Your task to perform on an android device: Open CNN.com Image 0: 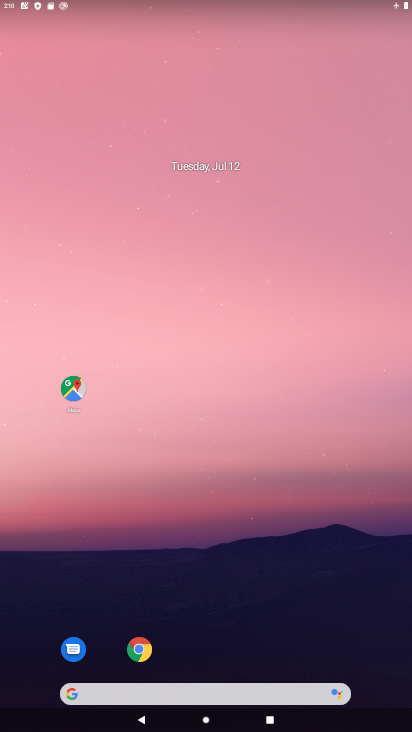
Step 0: drag from (225, 644) to (217, 179)
Your task to perform on an android device: Open CNN.com Image 1: 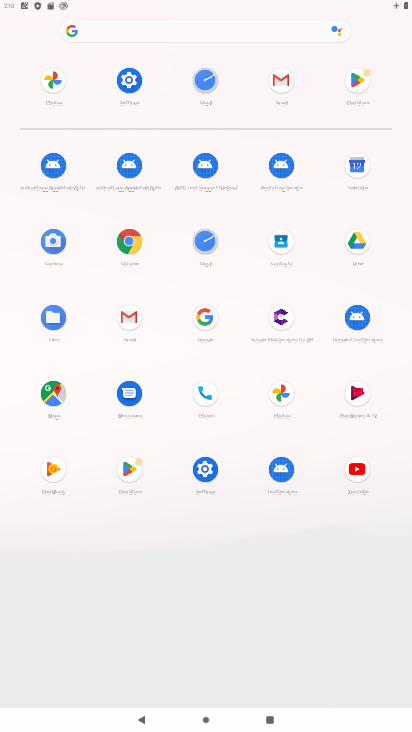
Step 1: click (133, 252)
Your task to perform on an android device: Open CNN.com Image 2: 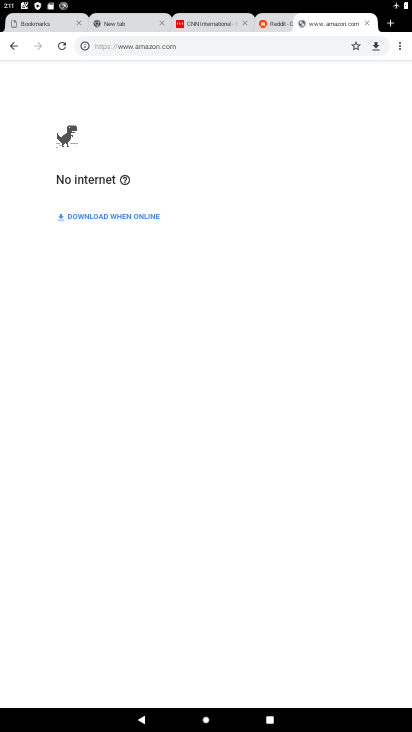
Step 2: press home button
Your task to perform on an android device: Open CNN.com Image 3: 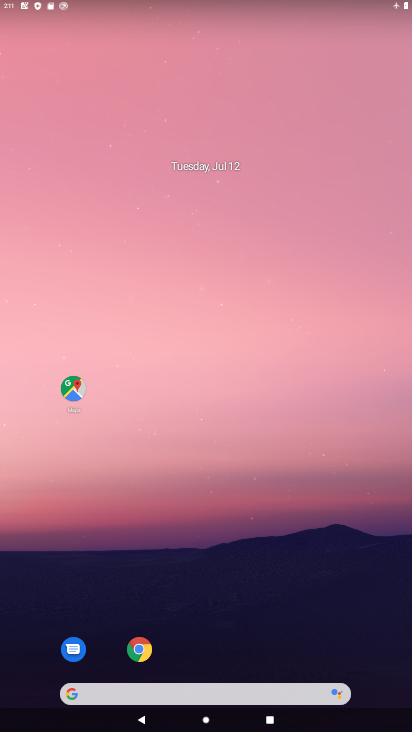
Step 3: drag from (258, 631) to (166, 11)
Your task to perform on an android device: Open CNN.com Image 4: 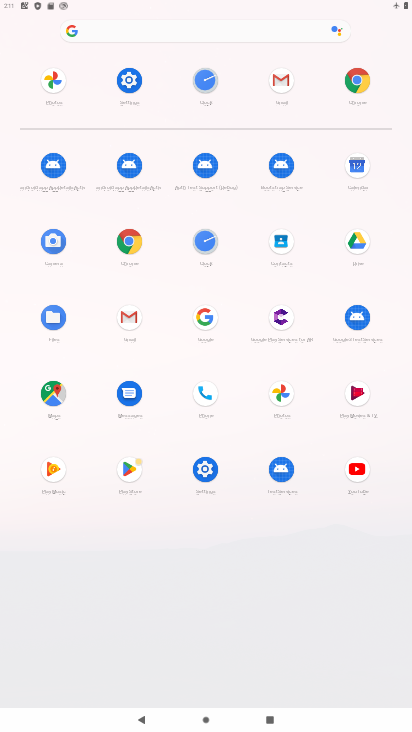
Step 4: click (149, 146)
Your task to perform on an android device: Open CNN.com Image 5: 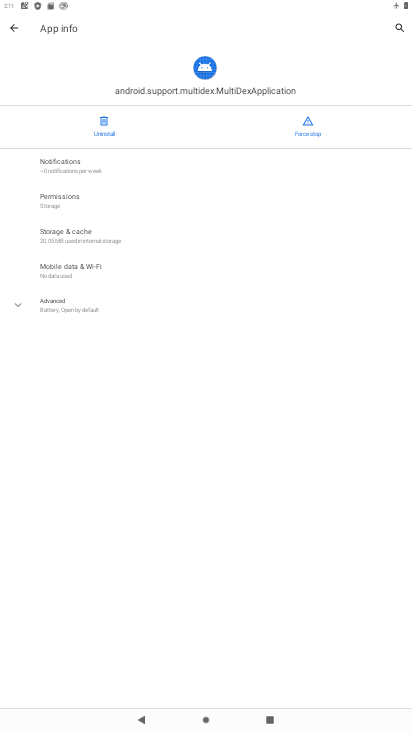
Step 5: click (15, 35)
Your task to perform on an android device: Open CNN.com Image 6: 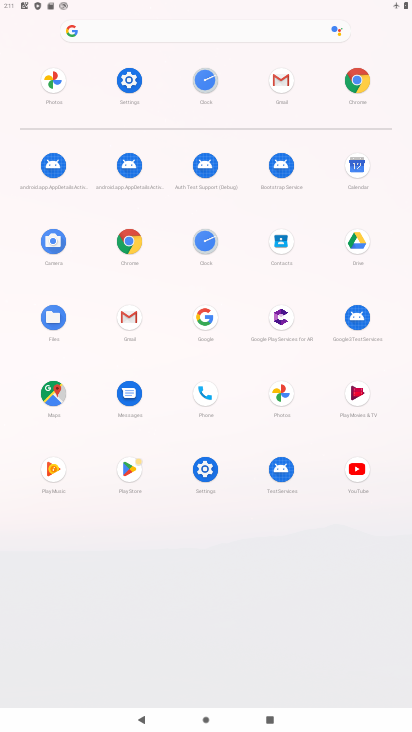
Step 6: click (144, 94)
Your task to perform on an android device: Open CNN.com Image 7: 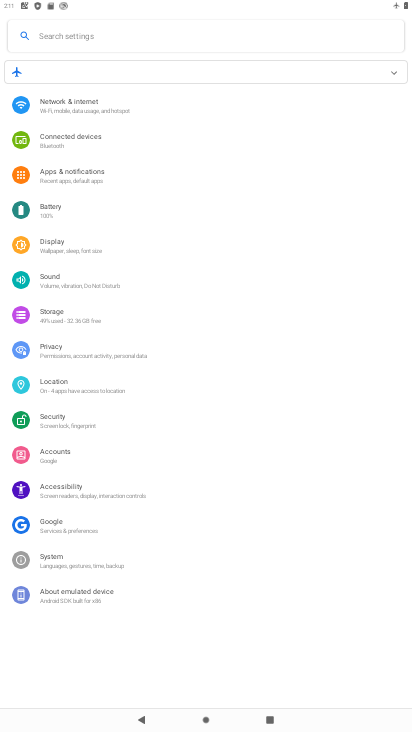
Step 7: click (246, 94)
Your task to perform on an android device: Open CNN.com Image 8: 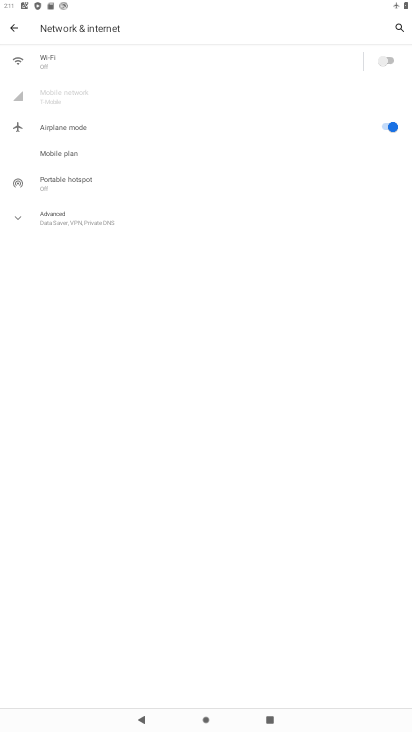
Step 8: click (384, 121)
Your task to perform on an android device: Open CNN.com Image 9: 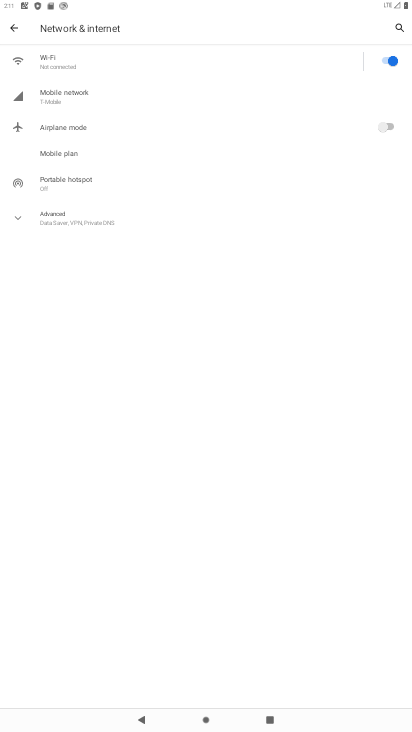
Step 9: press home button
Your task to perform on an android device: Open CNN.com Image 10: 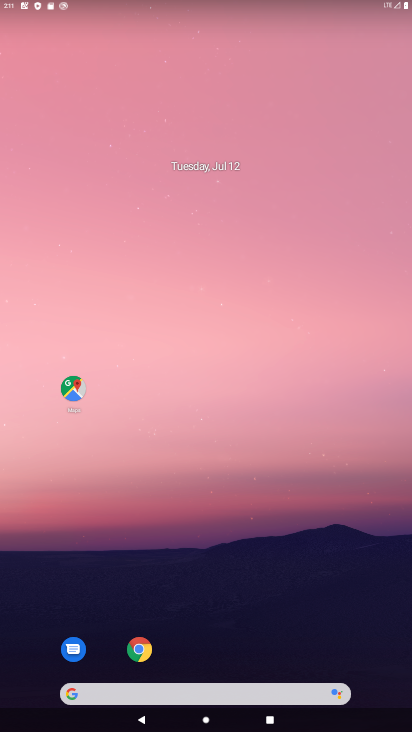
Step 10: click (146, 639)
Your task to perform on an android device: Open CNN.com Image 11: 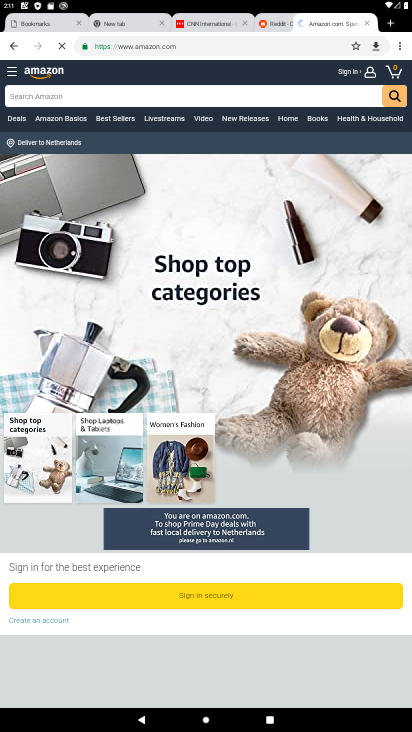
Step 11: click (389, 25)
Your task to perform on an android device: Open CNN.com Image 12: 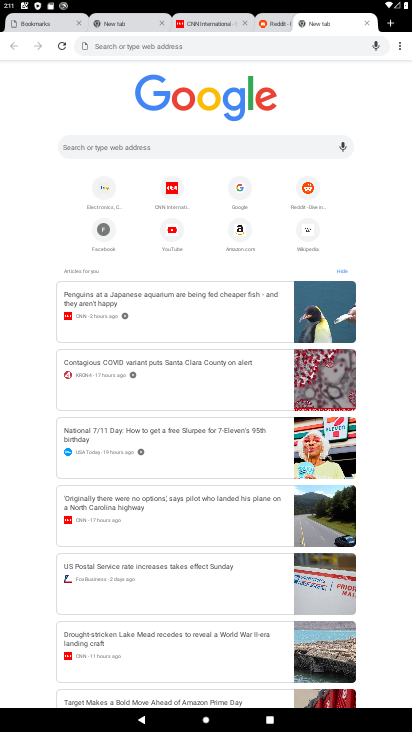
Step 12: type "cnn.com"
Your task to perform on an android device: Open CNN.com Image 13: 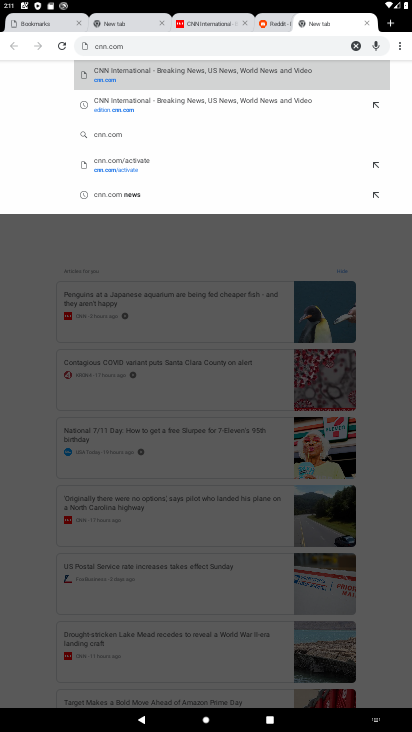
Step 13: click (170, 80)
Your task to perform on an android device: Open CNN.com Image 14: 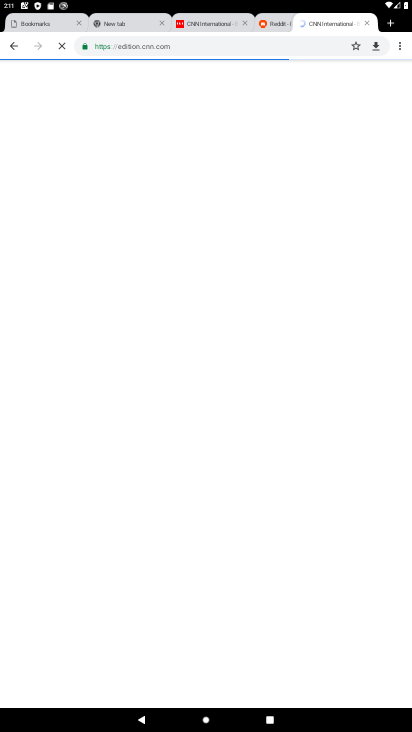
Step 14: task complete